Your task to perform on an android device: Open sound settings Image 0: 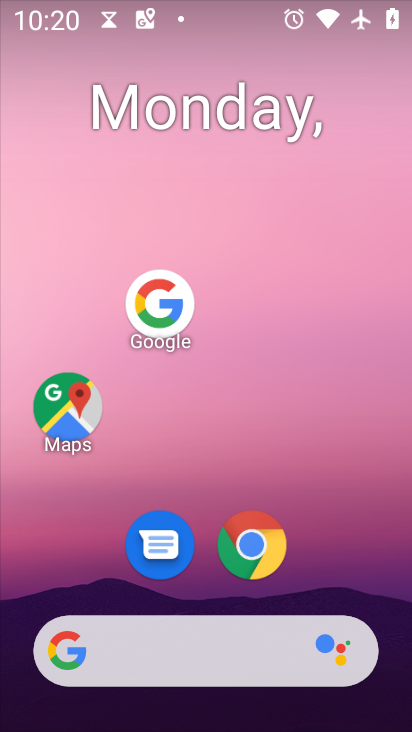
Step 0: press home button
Your task to perform on an android device: Open sound settings Image 1: 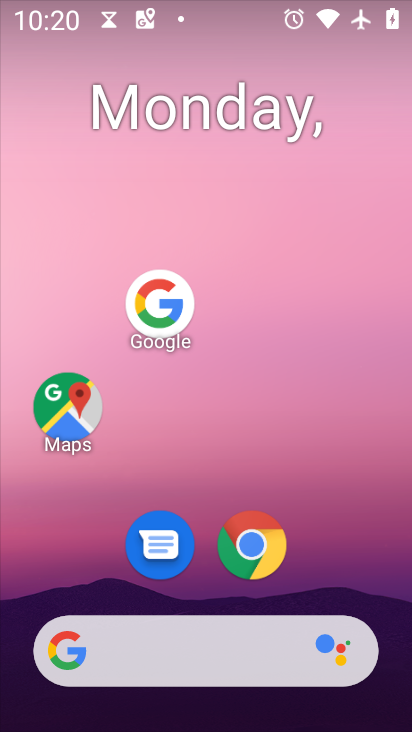
Step 1: drag from (200, 659) to (311, 144)
Your task to perform on an android device: Open sound settings Image 2: 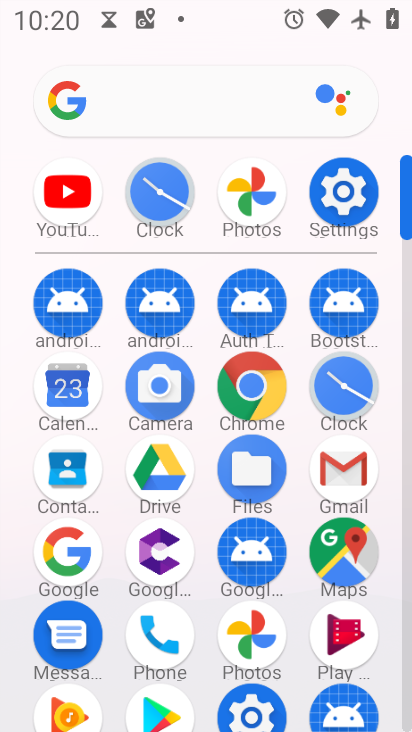
Step 2: click (339, 209)
Your task to perform on an android device: Open sound settings Image 3: 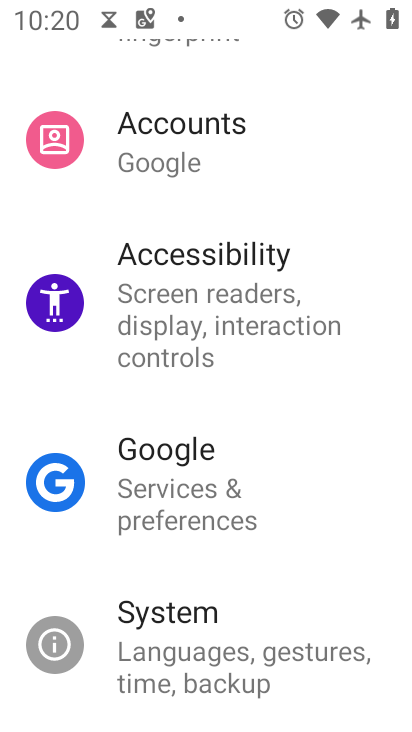
Step 3: drag from (323, 181) to (289, 596)
Your task to perform on an android device: Open sound settings Image 4: 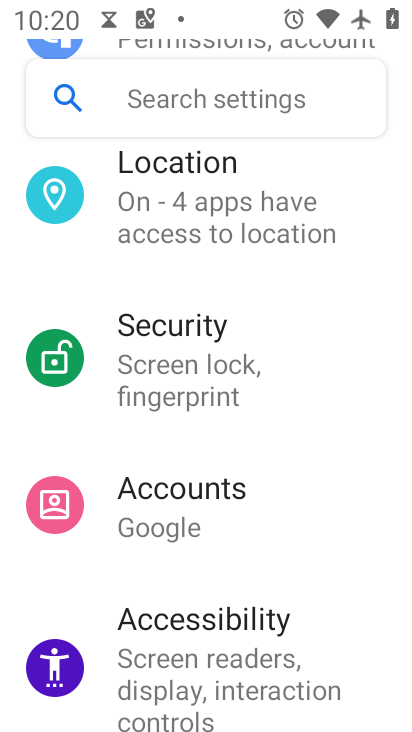
Step 4: drag from (319, 371) to (266, 609)
Your task to perform on an android device: Open sound settings Image 5: 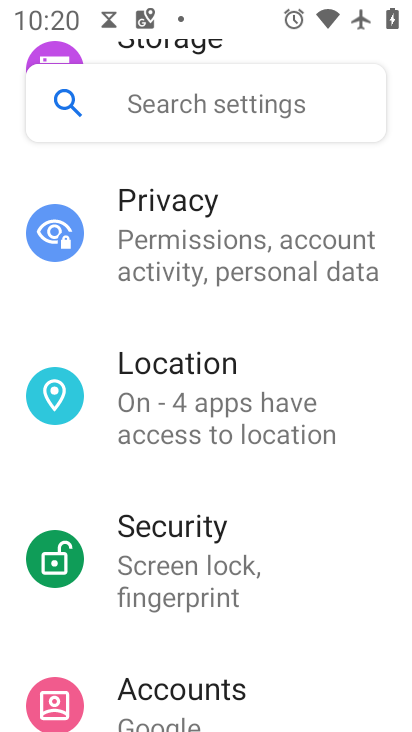
Step 5: drag from (295, 157) to (250, 557)
Your task to perform on an android device: Open sound settings Image 6: 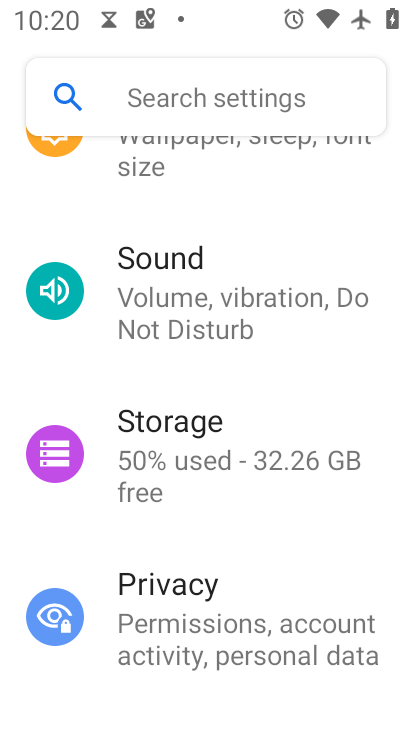
Step 6: click (224, 302)
Your task to perform on an android device: Open sound settings Image 7: 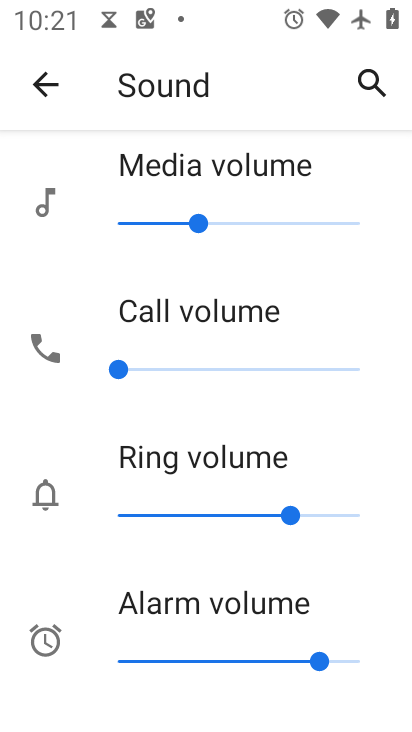
Step 7: task complete